Your task to perform on an android device: Go to sound settings Image 0: 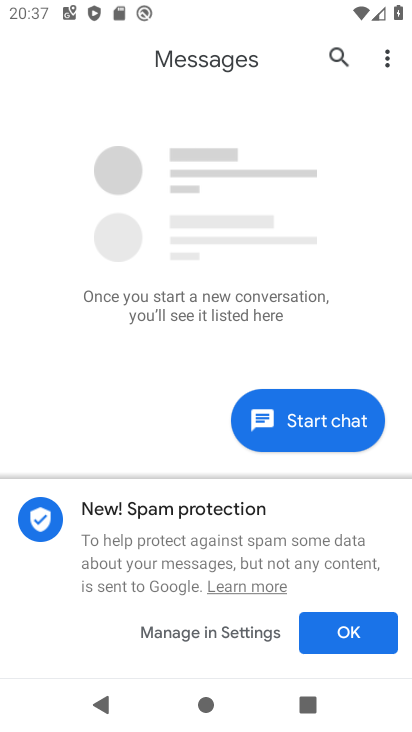
Step 0: press home button
Your task to perform on an android device: Go to sound settings Image 1: 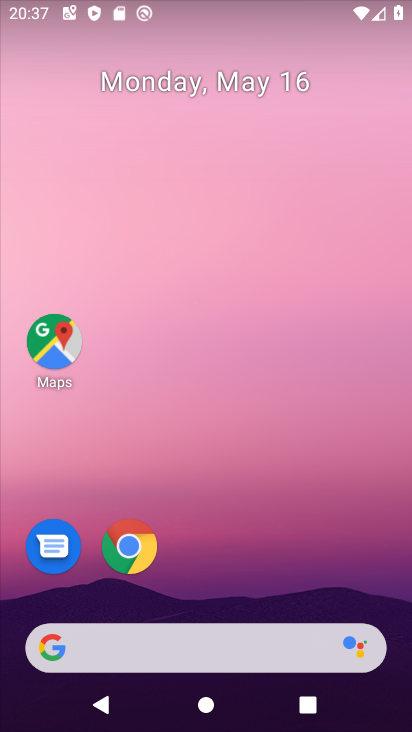
Step 1: drag from (258, 579) to (273, 130)
Your task to perform on an android device: Go to sound settings Image 2: 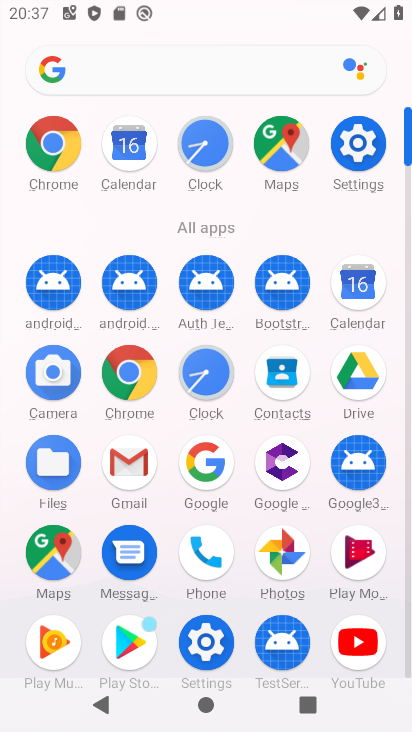
Step 2: click (347, 156)
Your task to perform on an android device: Go to sound settings Image 3: 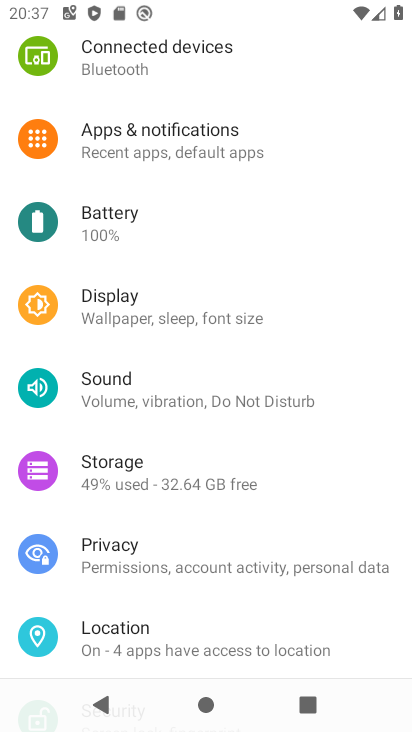
Step 3: click (283, 401)
Your task to perform on an android device: Go to sound settings Image 4: 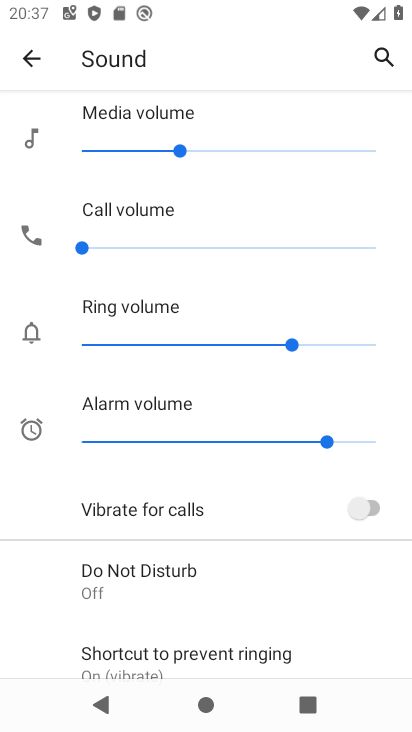
Step 4: task complete